Your task to perform on an android device: Search for "razer nari" on bestbuy.com, select the first entry, add it to the cart, then select checkout. Image 0: 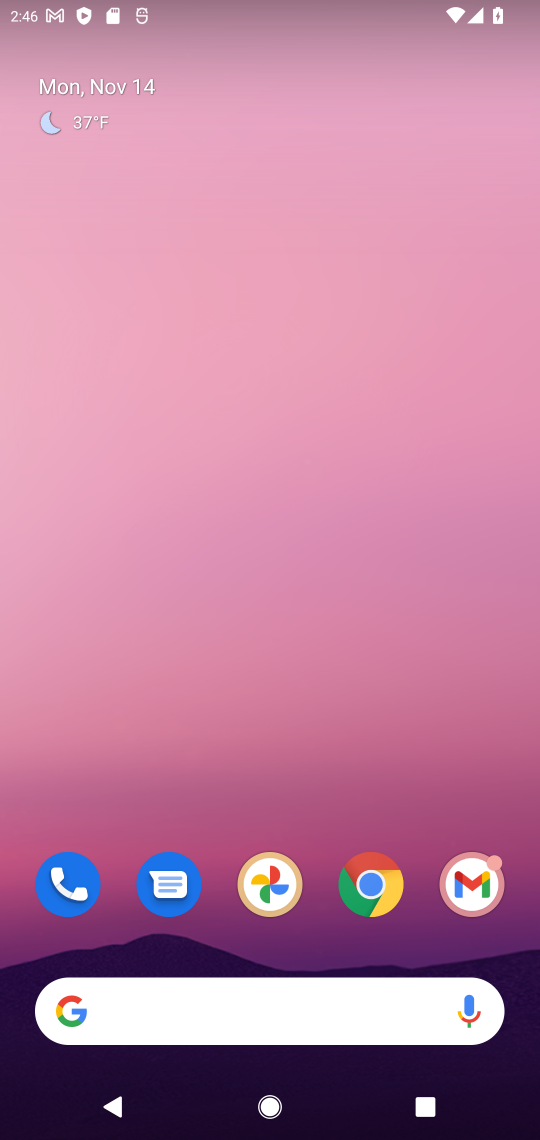
Step 0: click (348, 880)
Your task to perform on an android device: Search for "razer nari" on bestbuy.com, select the first entry, add it to the cart, then select checkout. Image 1: 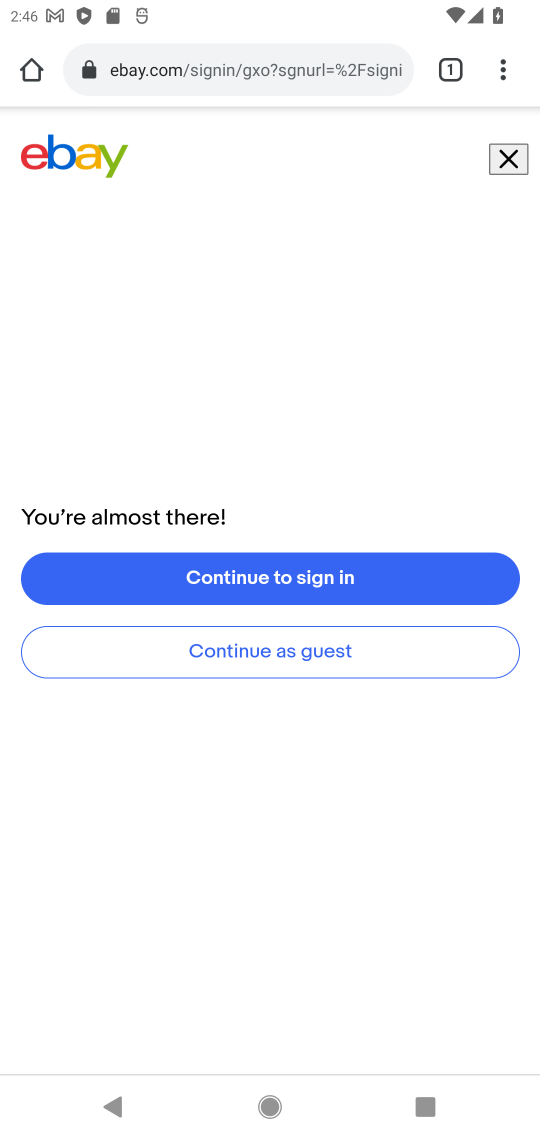
Step 1: click (216, 68)
Your task to perform on an android device: Search for "razer nari" on bestbuy.com, select the first entry, add it to the cart, then select checkout. Image 2: 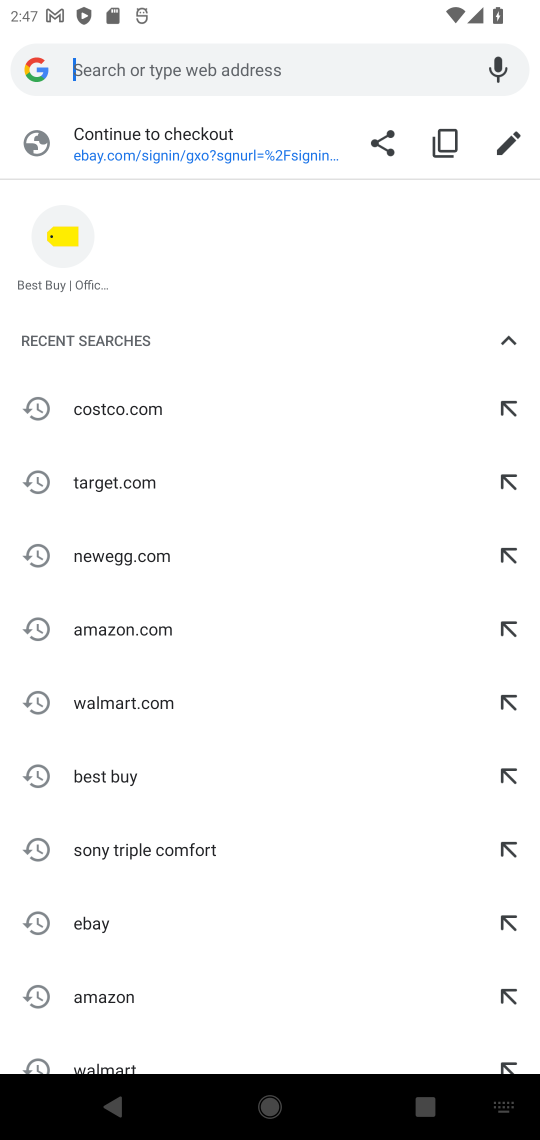
Step 2: click (118, 770)
Your task to perform on an android device: Search for "razer nari" on bestbuy.com, select the first entry, add it to the cart, then select checkout. Image 3: 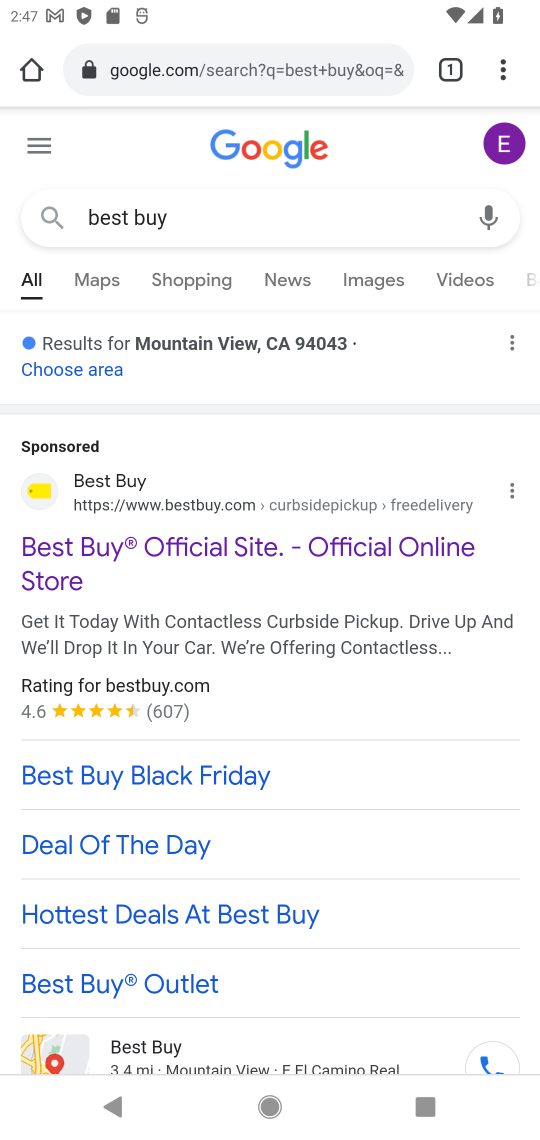
Step 3: click (154, 506)
Your task to perform on an android device: Search for "razer nari" on bestbuy.com, select the first entry, add it to the cart, then select checkout. Image 4: 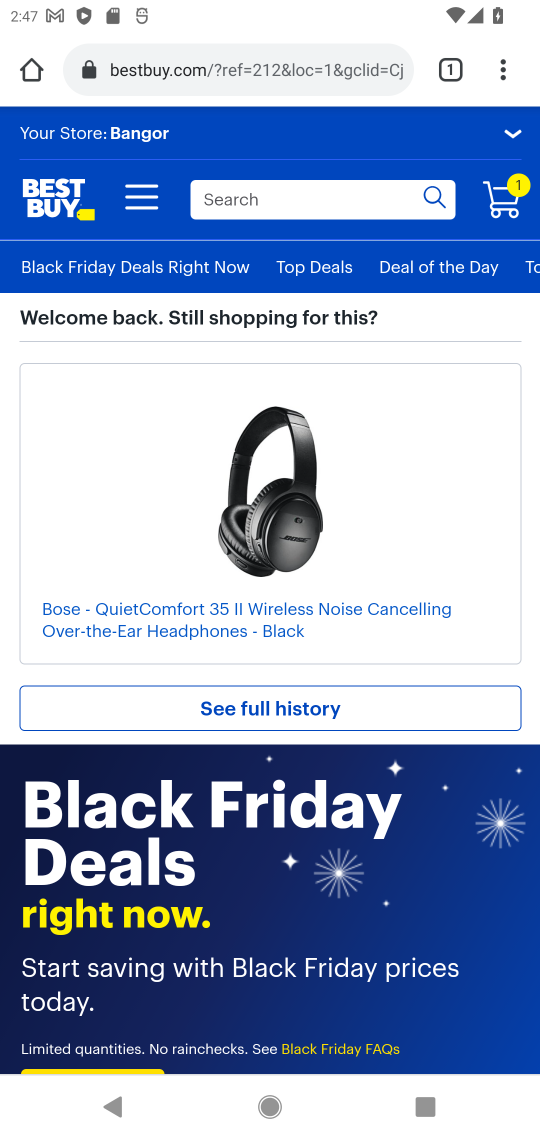
Step 4: click (322, 201)
Your task to perform on an android device: Search for "razer nari" on bestbuy.com, select the first entry, add it to the cart, then select checkout. Image 5: 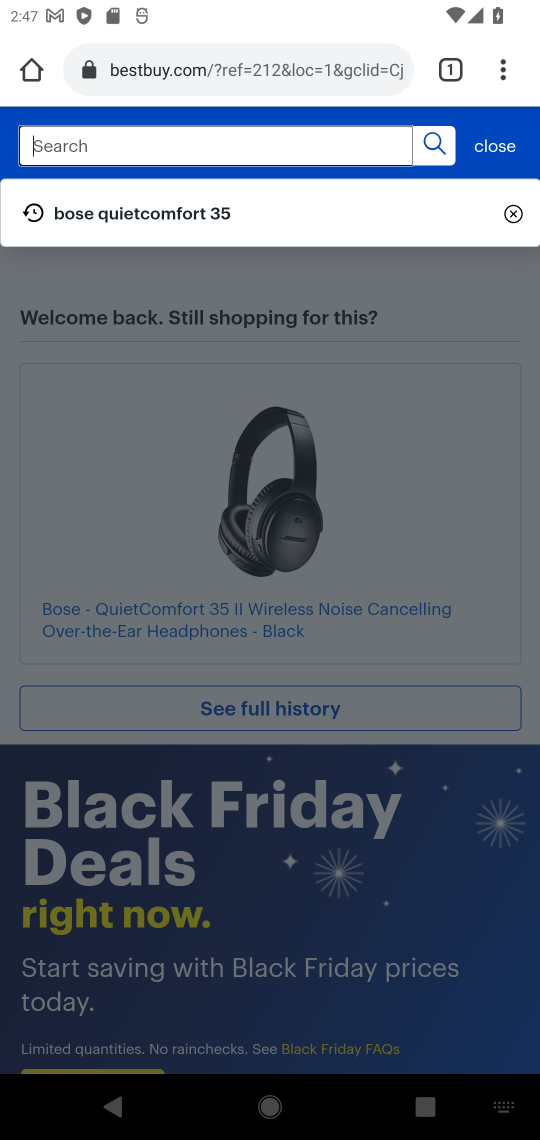
Step 5: type "razer nari"
Your task to perform on an android device: Search for "razer nari" on bestbuy.com, select the first entry, add it to the cart, then select checkout. Image 6: 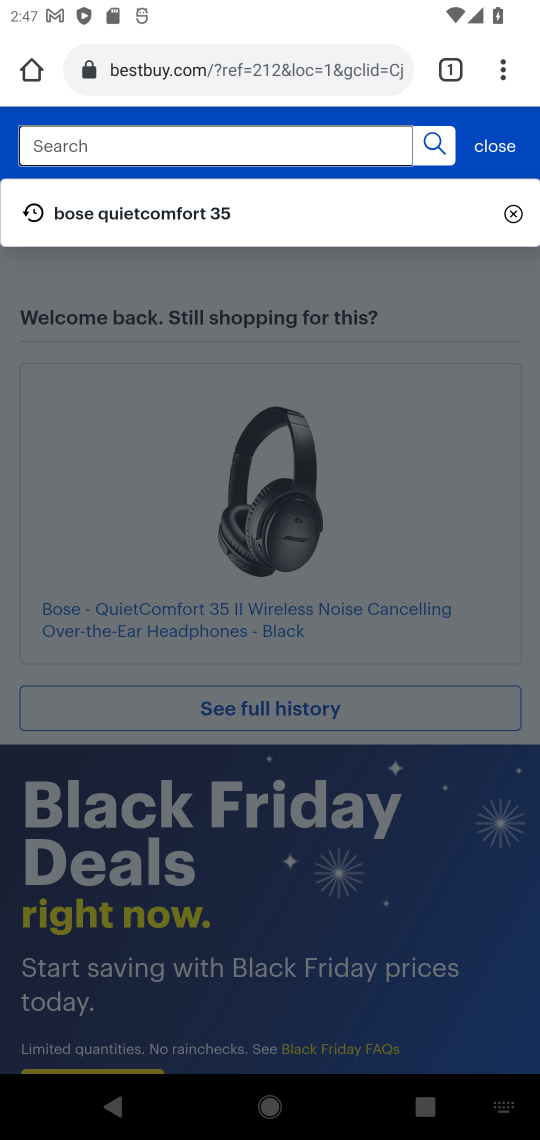
Step 6: press enter
Your task to perform on an android device: Search for "razer nari" on bestbuy.com, select the first entry, add it to the cart, then select checkout. Image 7: 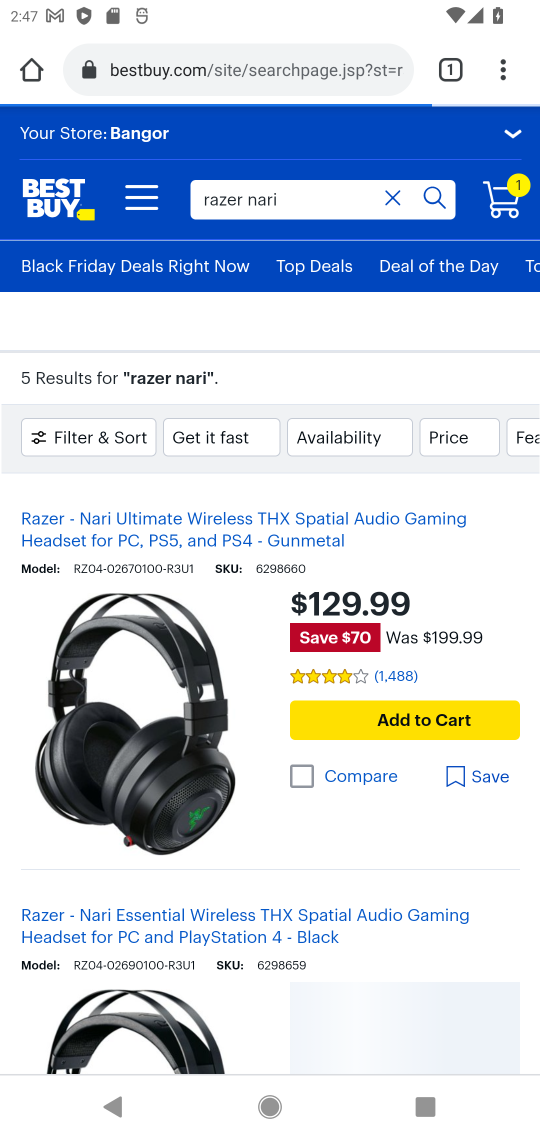
Step 7: click (82, 715)
Your task to perform on an android device: Search for "razer nari" on bestbuy.com, select the first entry, add it to the cart, then select checkout. Image 8: 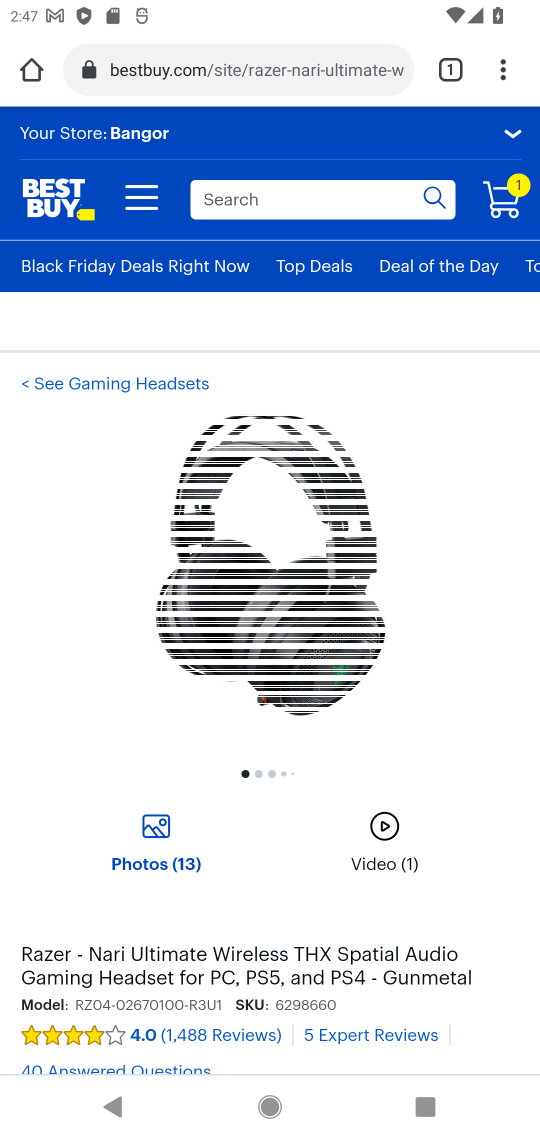
Step 8: drag from (299, 955) to (463, 450)
Your task to perform on an android device: Search for "razer nari" on bestbuy.com, select the first entry, add it to the cart, then select checkout. Image 9: 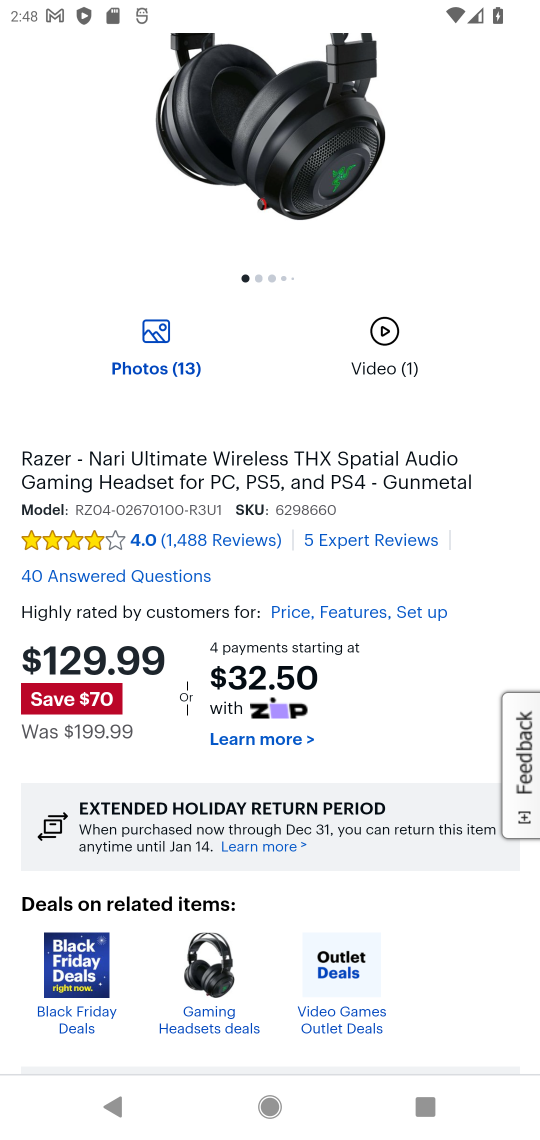
Step 9: drag from (472, 878) to (423, 567)
Your task to perform on an android device: Search for "razer nari" on bestbuy.com, select the first entry, add it to the cart, then select checkout. Image 10: 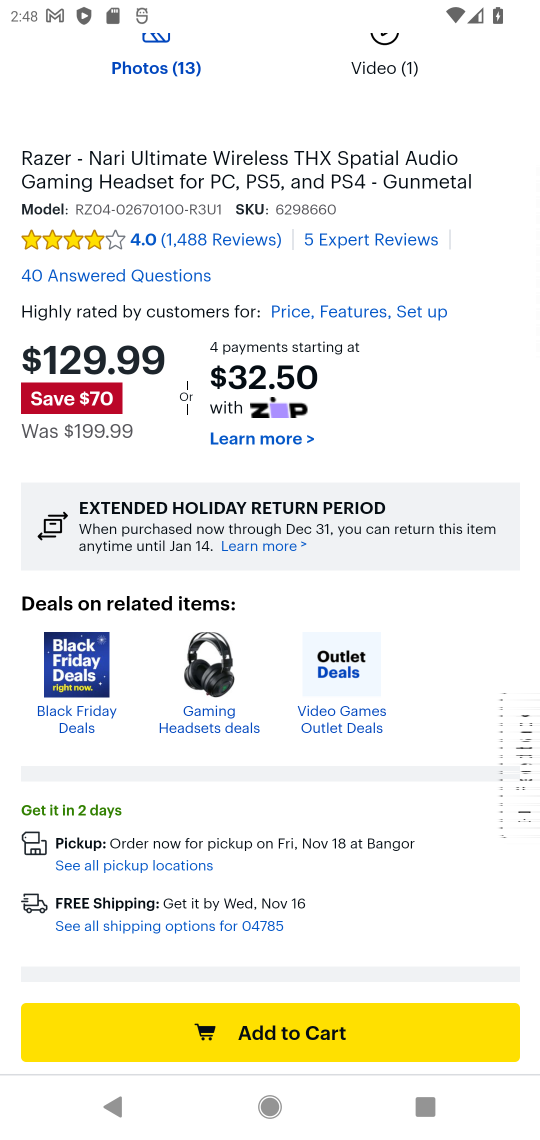
Step 10: click (300, 1025)
Your task to perform on an android device: Search for "razer nari" on bestbuy.com, select the first entry, add it to the cart, then select checkout. Image 11: 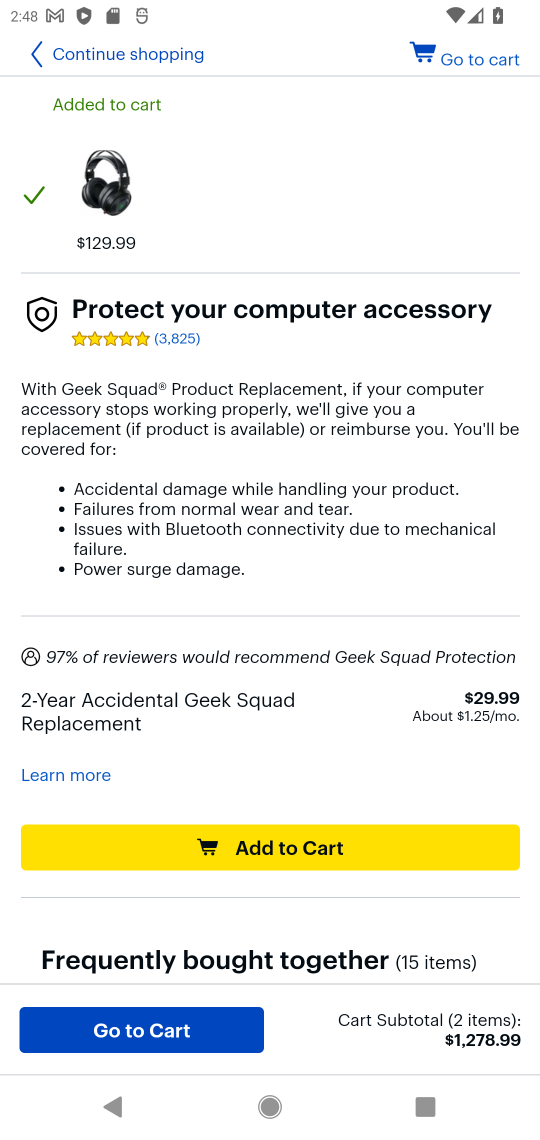
Step 11: click (197, 1023)
Your task to perform on an android device: Search for "razer nari" on bestbuy.com, select the first entry, add it to the cart, then select checkout. Image 12: 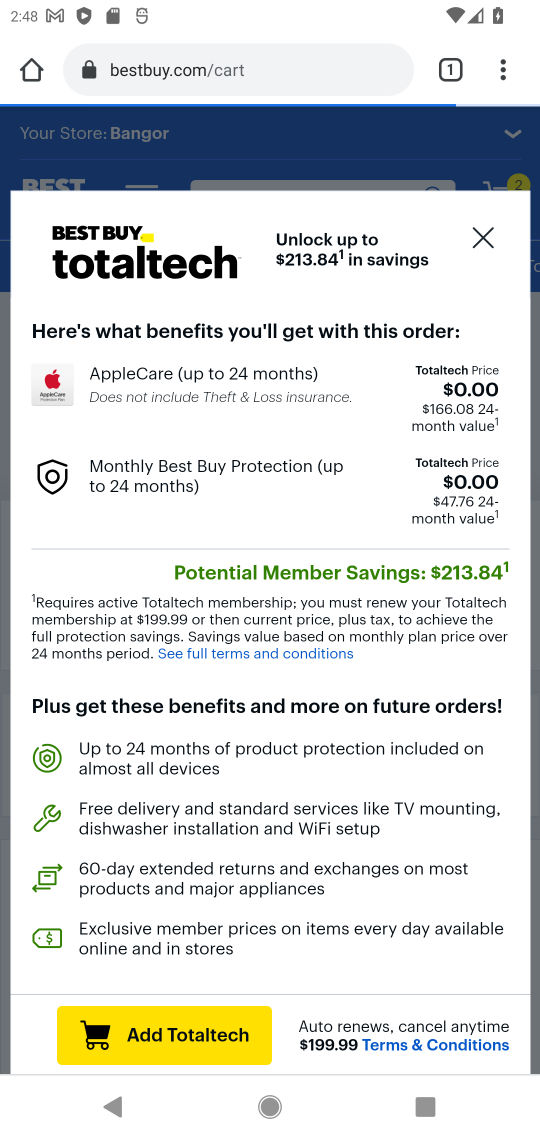
Step 12: click (475, 230)
Your task to perform on an android device: Search for "razer nari" on bestbuy.com, select the first entry, add it to the cart, then select checkout. Image 13: 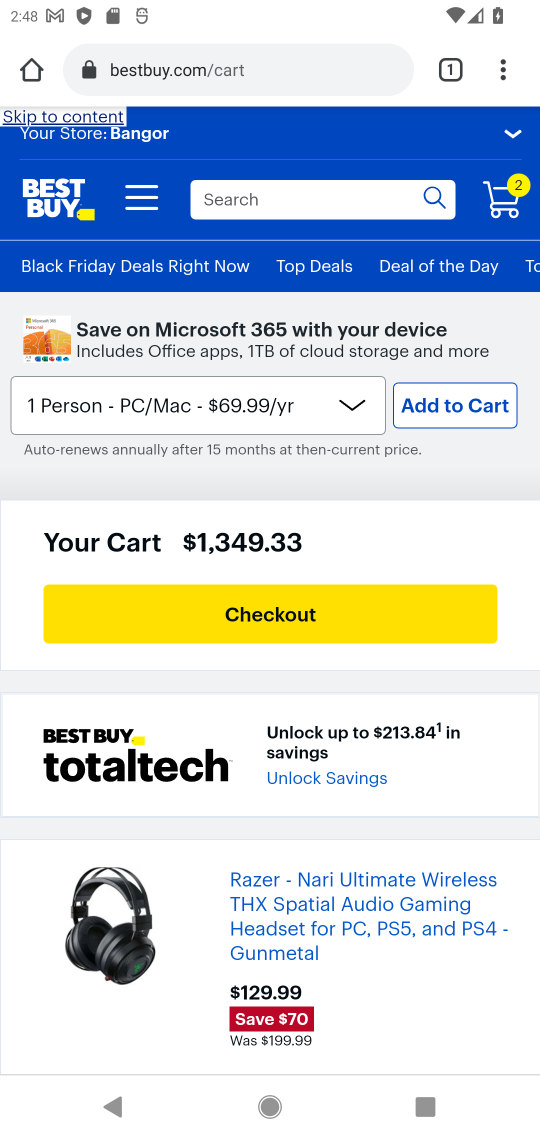
Step 13: click (257, 613)
Your task to perform on an android device: Search for "razer nari" on bestbuy.com, select the first entry, add it to the cart, then select checkout. Image 14: 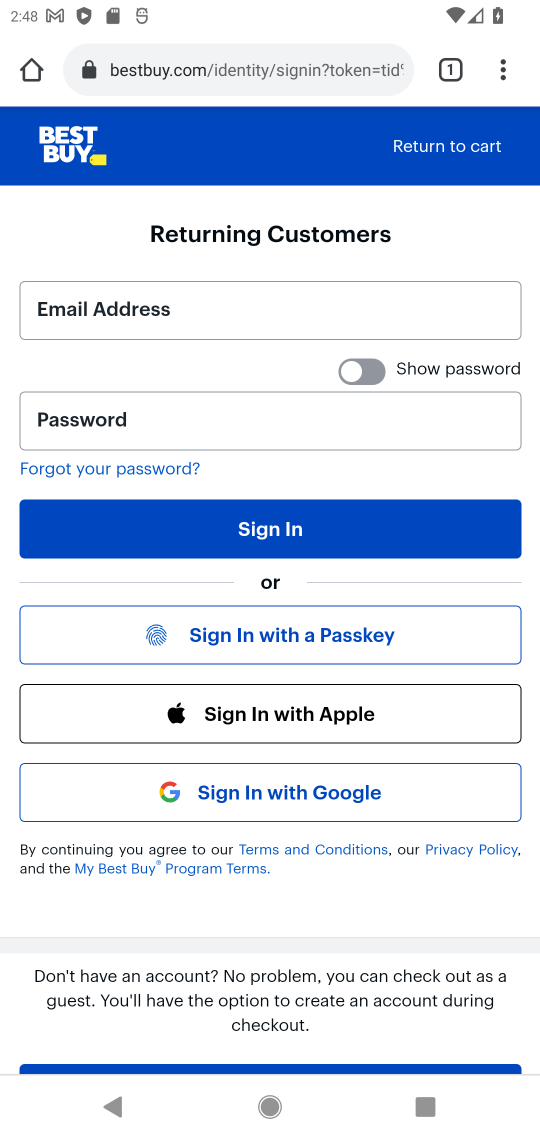
Step 14: task complete